Your task to perform on an android device: Open Chrome and go to settings Image 0: 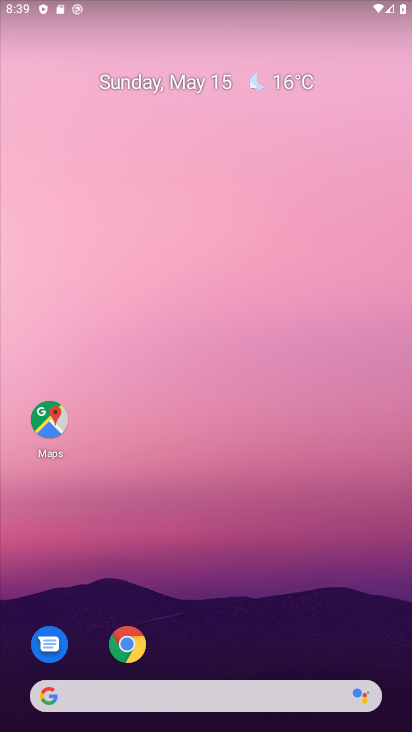
Step 0: click (127, 646)
Your task to perform on an android device: Open Chrome and go to settings Image 1: 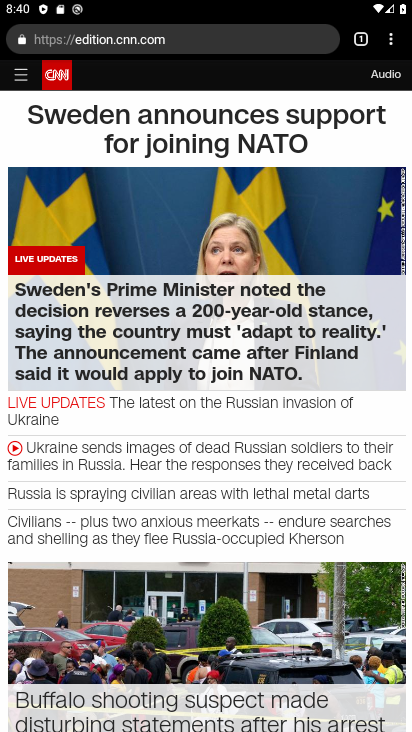
Step 1: click (389, 38)
Your task to perform on an android device: Open Chrome and go to settings Image 2: 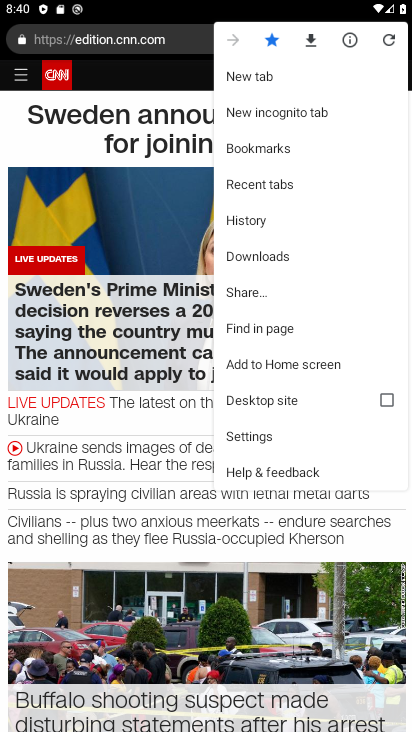
Step 2: click (271, 440)
Your task to perform on an android device: Open Chrome and go to settings Image 3: 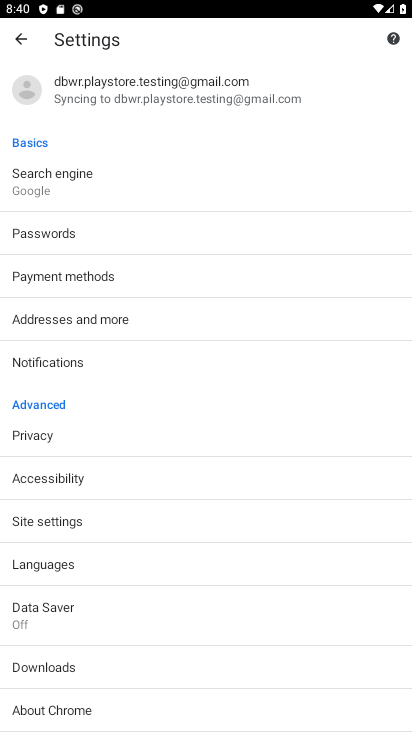
Step 3: task complete